Your task to perform on an android device: change the clock style Image 0: 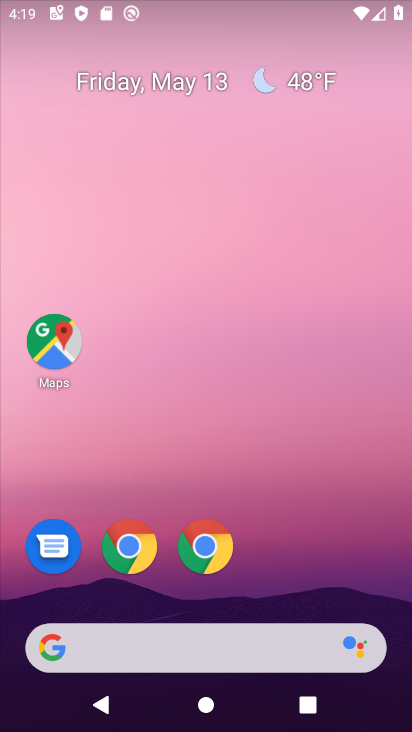
Step 0: drag from (15, 245) to (106, 725)
Your task to perform on an android device: change the clock style Image 1: 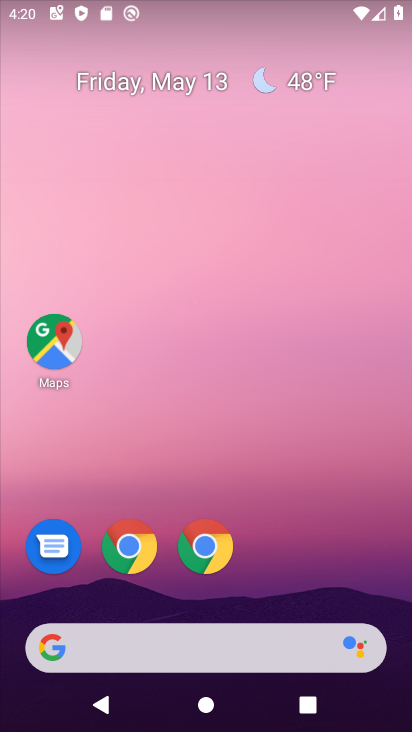
Step 1: drag from (331, 604) to (274, 22)
Your task to perform on an android device: change the clock style Image 2: 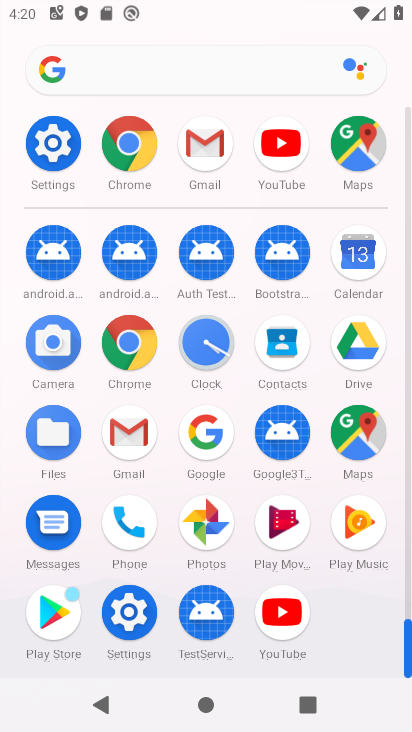
Step 2: click (203, 336)
Your task to perform on an android device: change the clock style Image 3: 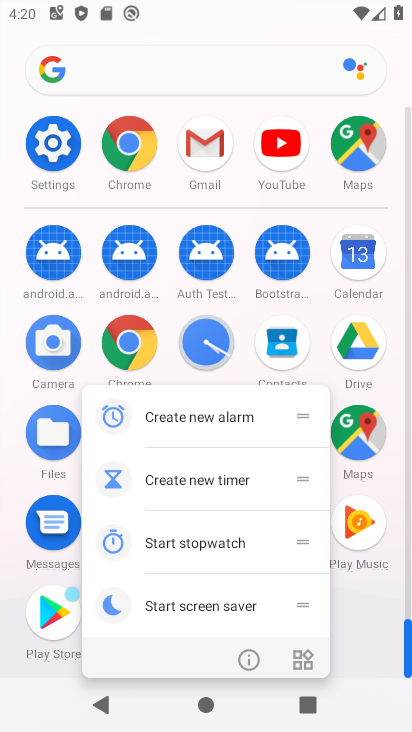
Step 3: click (224, 341)
Your task to perform on an android device: change the clock style Image 4: 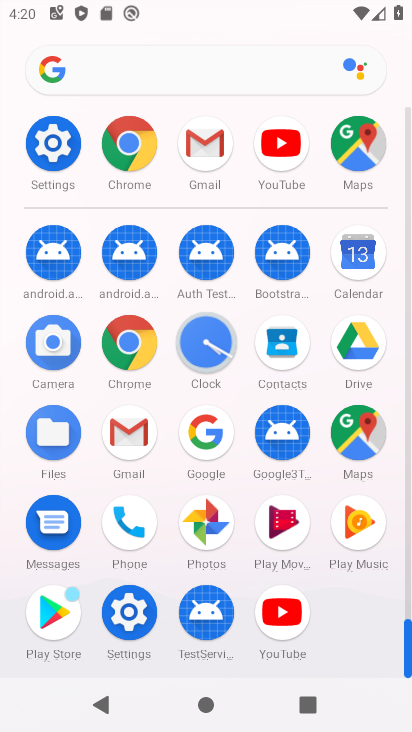
Step 4: click (222, 342)
Your task to perform on an android device: change the clock style Image 5: 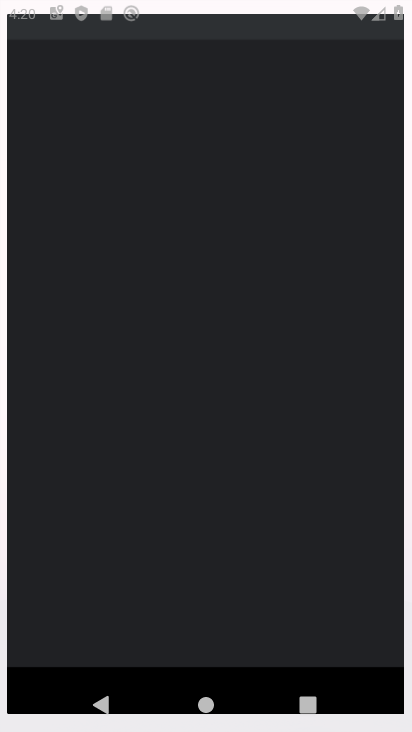
Step 5: click (222, 342)
Your task to perform on an android device: change the clock style Image 6: 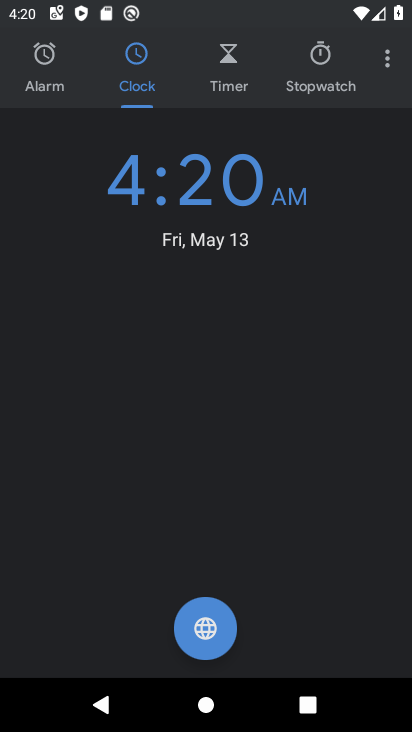
Step 6: click (214, 341)
Your task to perform on an android device: change the clock style Image 7: 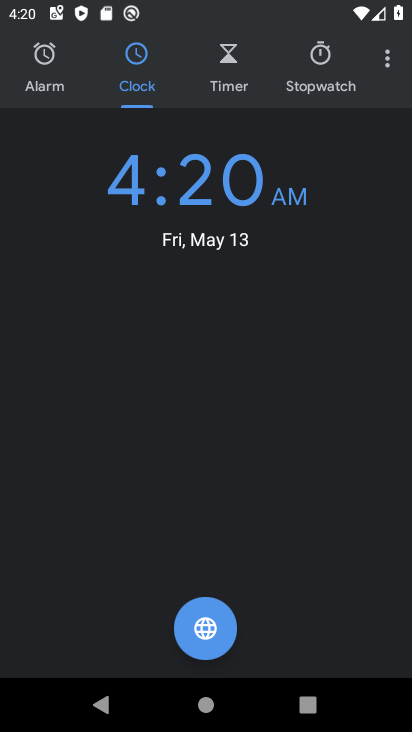
Step 7: click (384, 53)
Your task to perform on an android device: change the clock style Image 8: 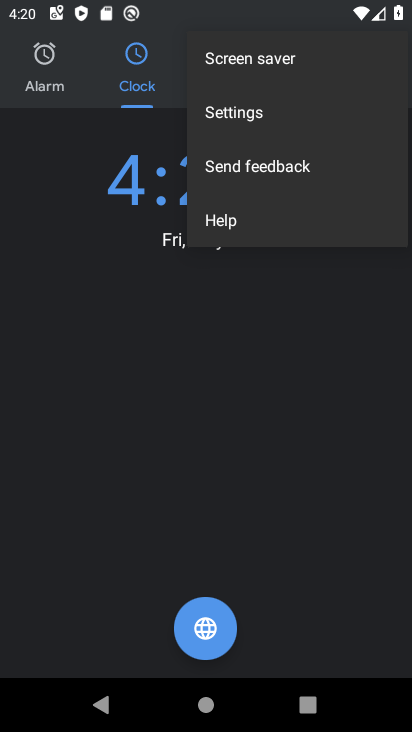
Step 8: click (234, 112)
Your task to perform on an android device: change the clock style Image 9: 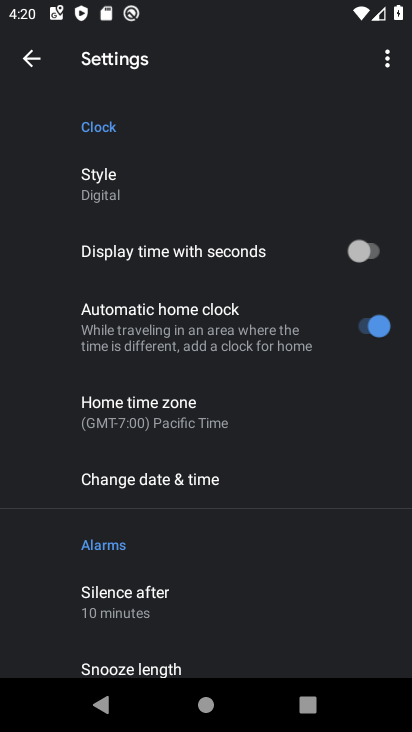
Step 9: click (144, 187)
Your task to perform on an android device: change the clock style Image 10: 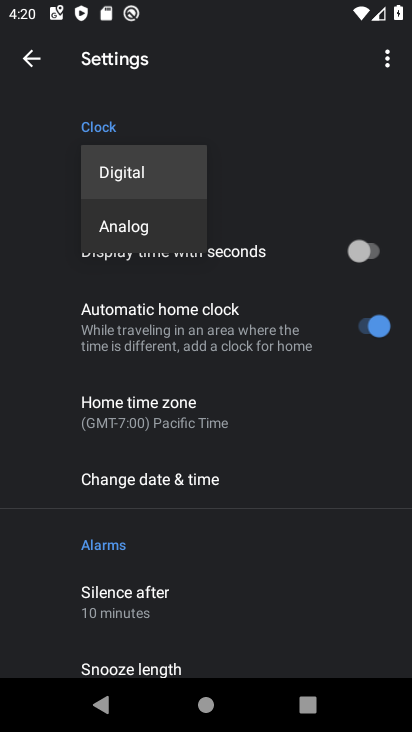
Step 10: click (148, 229)
Your task to perform on an android device: change the clock style Image 11: 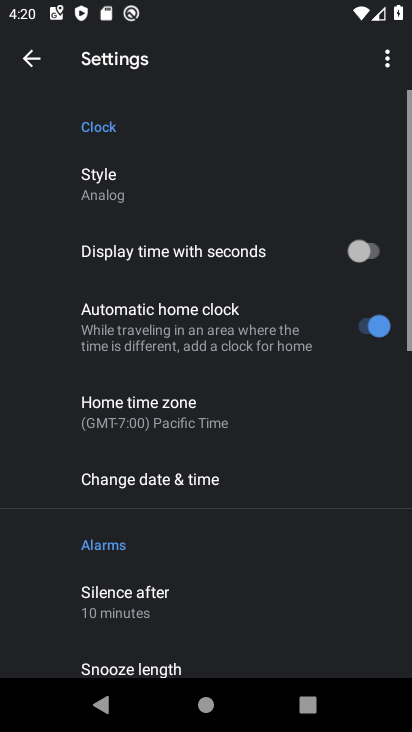
Step 11: task complete